Your task to perform on an android device: Go to internet settings Image 0: 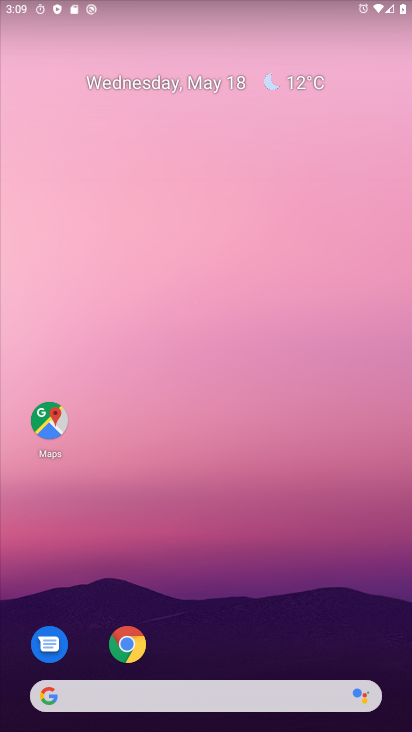
Step 0: drag from (391, 684) to (227, 102)
Your task to perform on an android device: Go to internet settings Image 1: 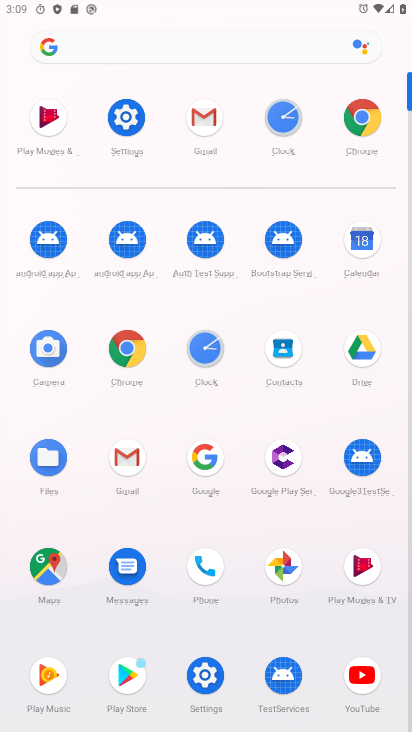
Step 1: click (137, 108)
Your task to perform on an android device: Go to internet settings Image 2: 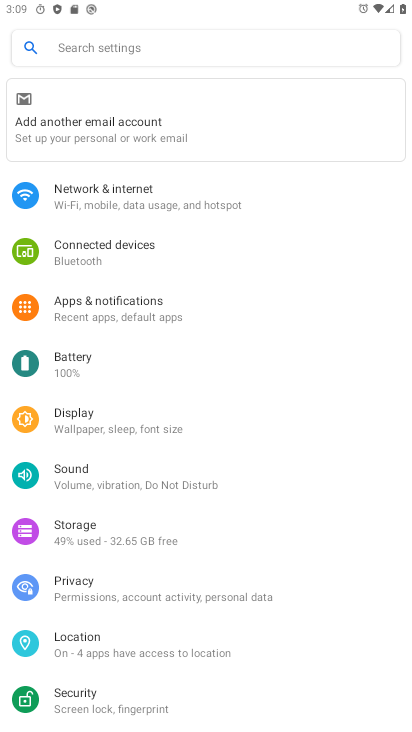
Step 2: click (94, 185)
Your task to perform on an android device: Go to internet settings Image 3: 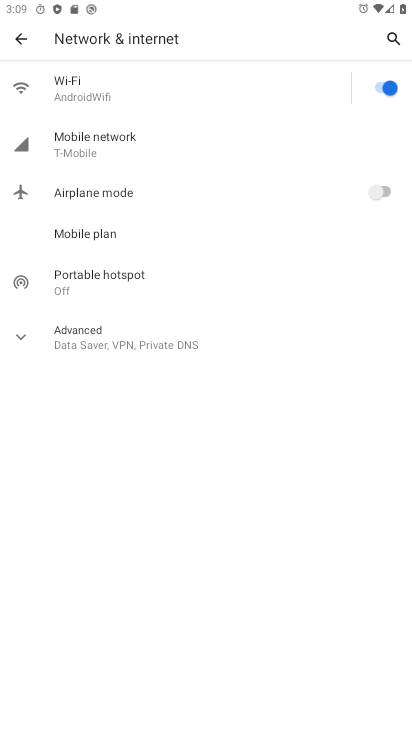
Step 3: task complete